Your task to perform on an android device: Open Google Chrome and open the bookmarks view Image 0: 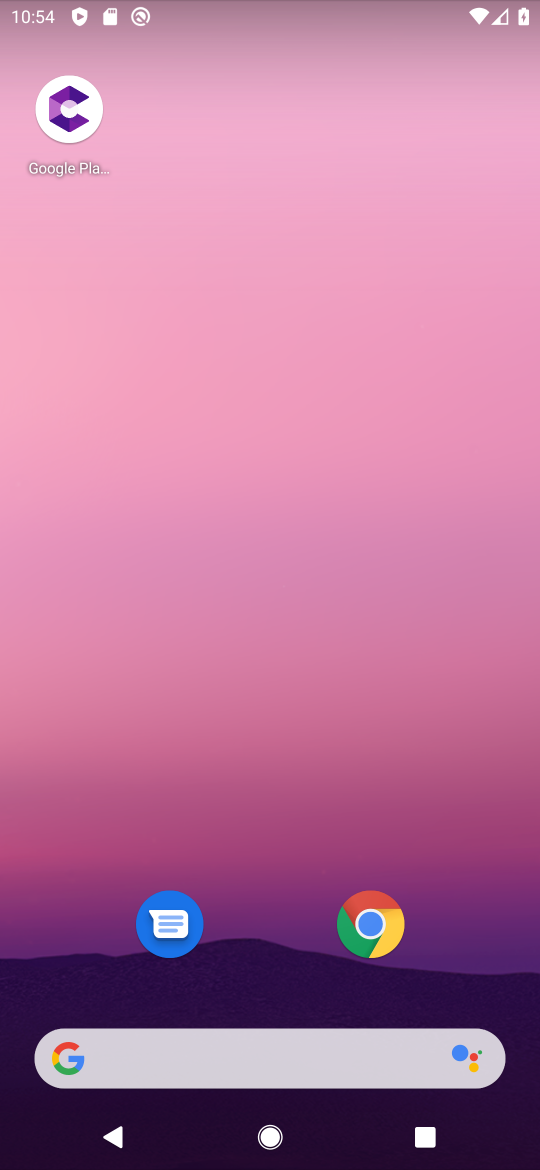
Step 0: drag from (245, 972) to (419, 14)
Your task to perform on an android device: Open Google Chrome and open the bookmarks view Image 1: 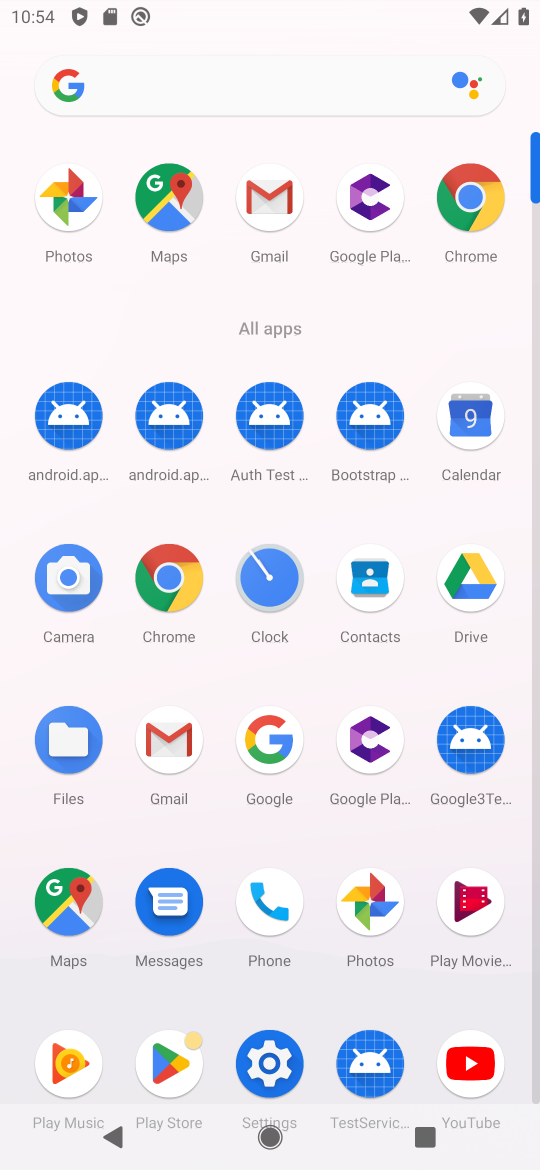
Step 1: click (466, 207)
Your task to perform on an android device: Open Google Chrome and open the bookmarks view Image 2: 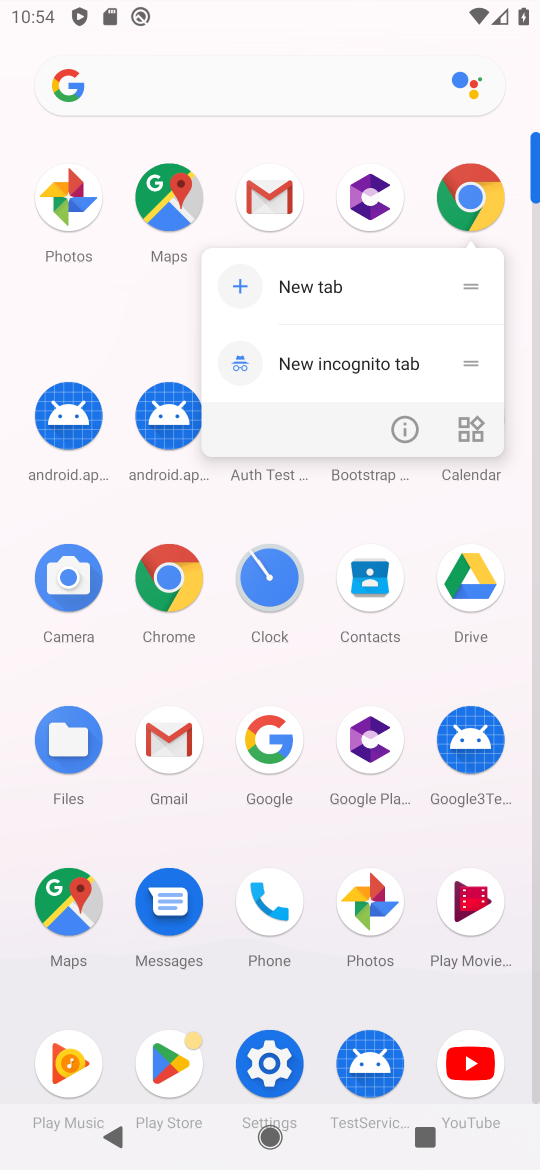
Step 2: click (456, 220)
Your task to perform on an android device: Open Google Chrome and open the bookmarks view Image 3: 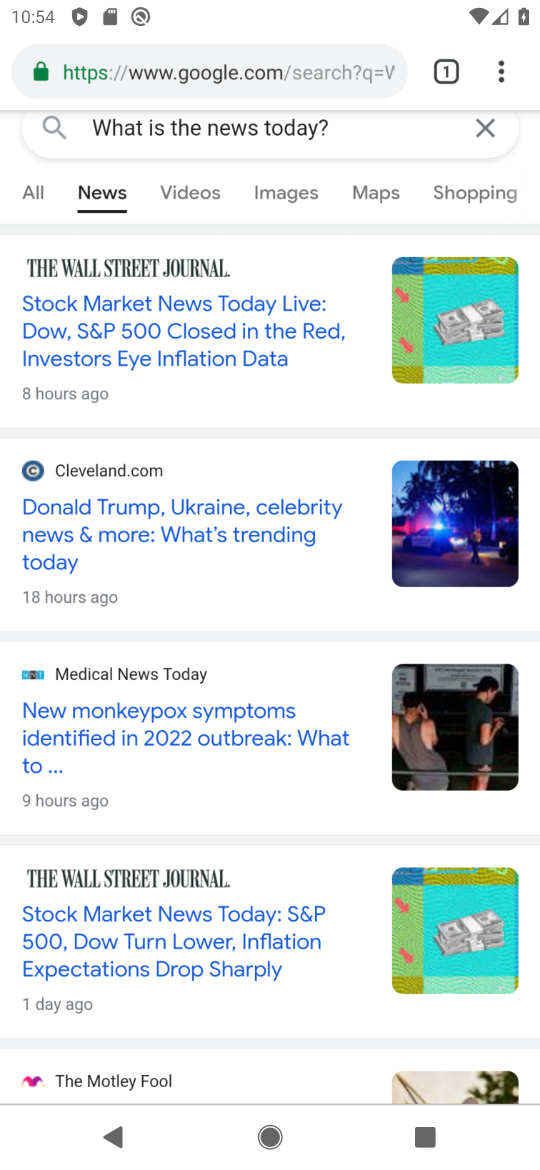
Step 3: click (166, 578)
Your task to perform on an android device: Open Google Chrome and open the bookmarks view Image 4: 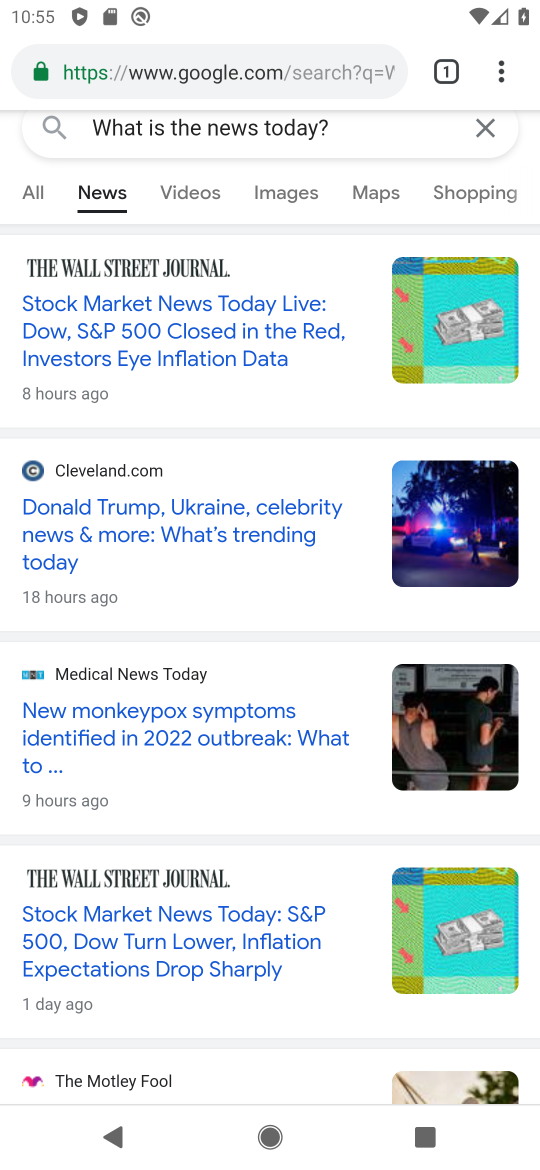
Step 4: task complete